Your task to perform on an android device: Empty the shopping cart on bestbuy.com. Image 0: 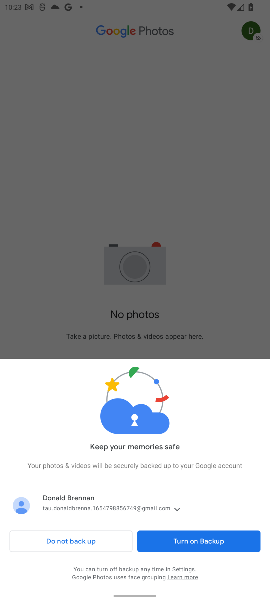
Step 0: press home button
Your task to perform on an android device: Empty the shopping cart on bestbuy.com. Image 1: 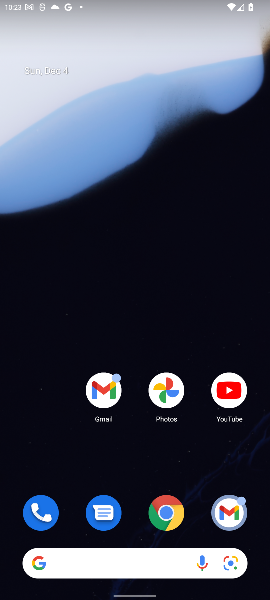
Step 1: click (171, 508)
Your task to perform on an android device: Empty the shopping cart on bestbuy.com. Image 2: 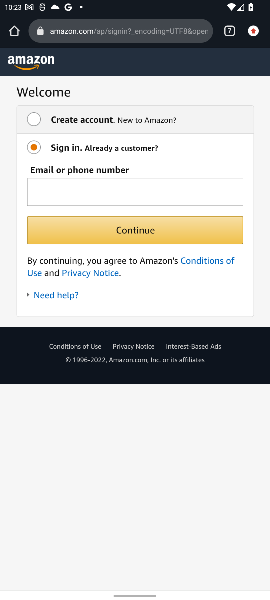
Step 2: click (224, 28)
Your task to perform on an android device: Empty the shopping cart on bestbuy.com. Image 3: 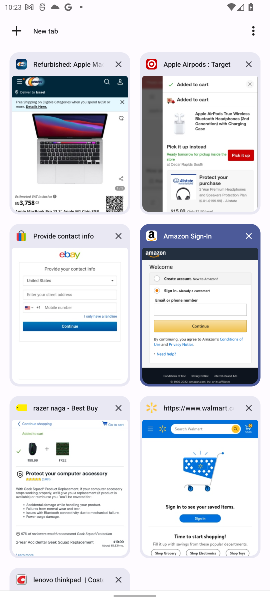
Step 3: click (60, 484)
Your task to perform on an android device: Empty the shopping cart on bestbuy.com. Image 4: 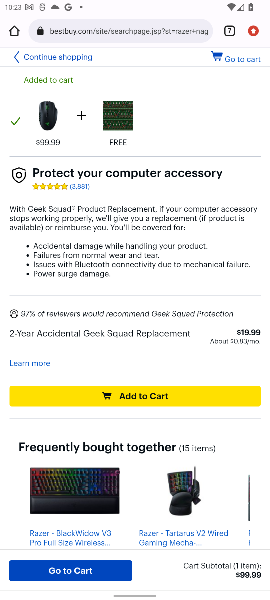
Step 4: click (77, 52)
Your task to perform on an android device: Empty the shopping cart on bestbuy.com. Image 5: 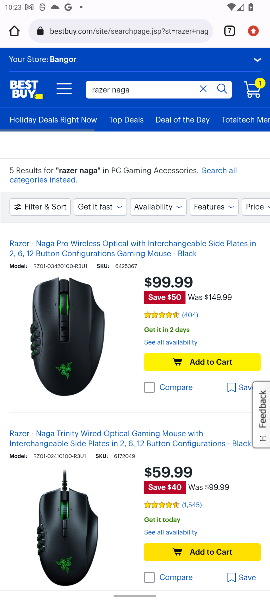
Step 5: click (257, 93)
Your task to perform on an android device: Empty the shopping cart on bestbuy.com. Image 6: 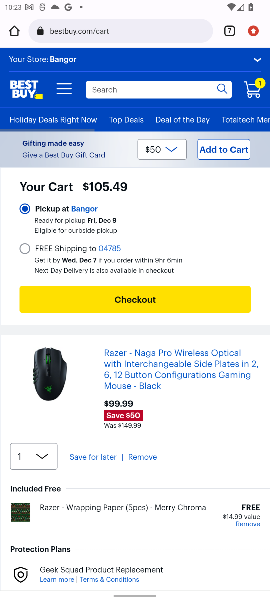
Step 6: click (142, 454)
Your task to perform on an android device: Empty the shopping cart on bestbuy.com. Image 7: 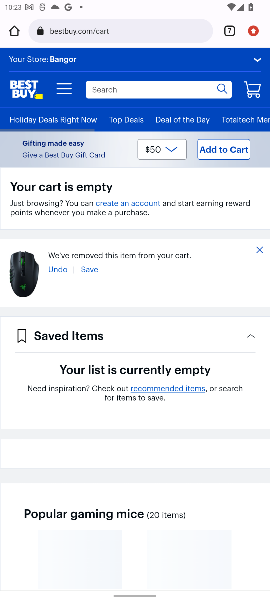
Step 7: click (142, 454)
Your task to perform on an android device: Empty the shopping cart on bestbuy.com. Image 8: 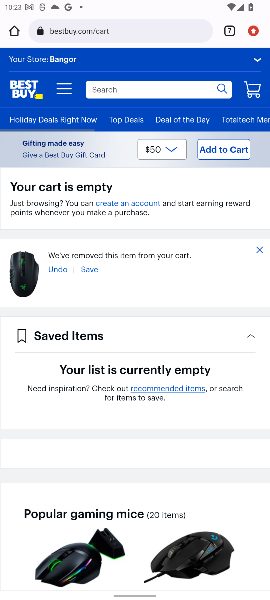
Step 8: task complete